Your task to perform on an android device: Show the shopping cart on ebay. Search for duracell triple a on ebay, select the first entry, and add it to the cart. Image 0: 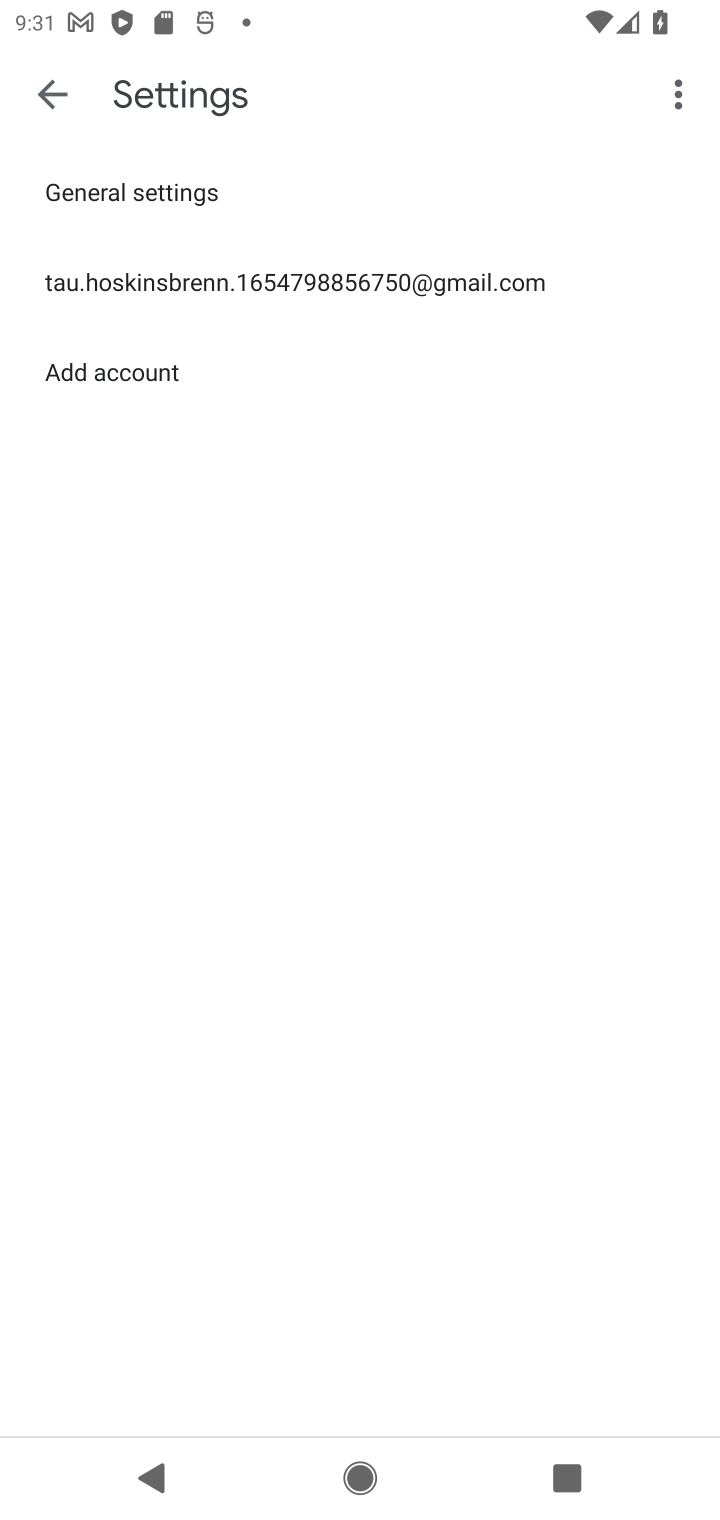
Step 0: press home button
Your task to perform on an android device: Show the shopping cart on ebay. Search for duracell triple a on ebay, select the first entry, and add it to the cart. Image 1: 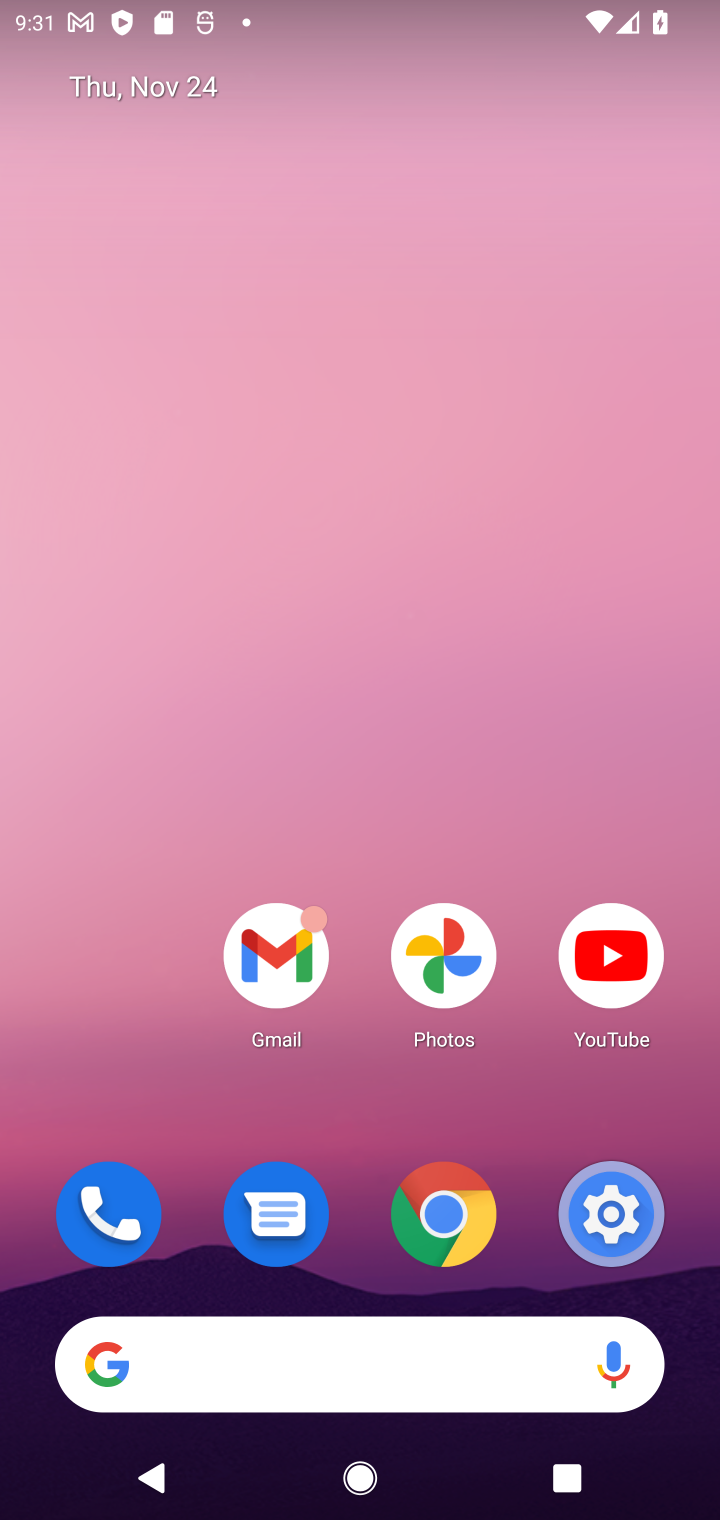
Step 1: click (383, 1357)
Your task to perform on an android device: Show the shopping cart on ebay. Search for duracell triple a on ebay, select the first entry, and add it to the cart. Image 2: 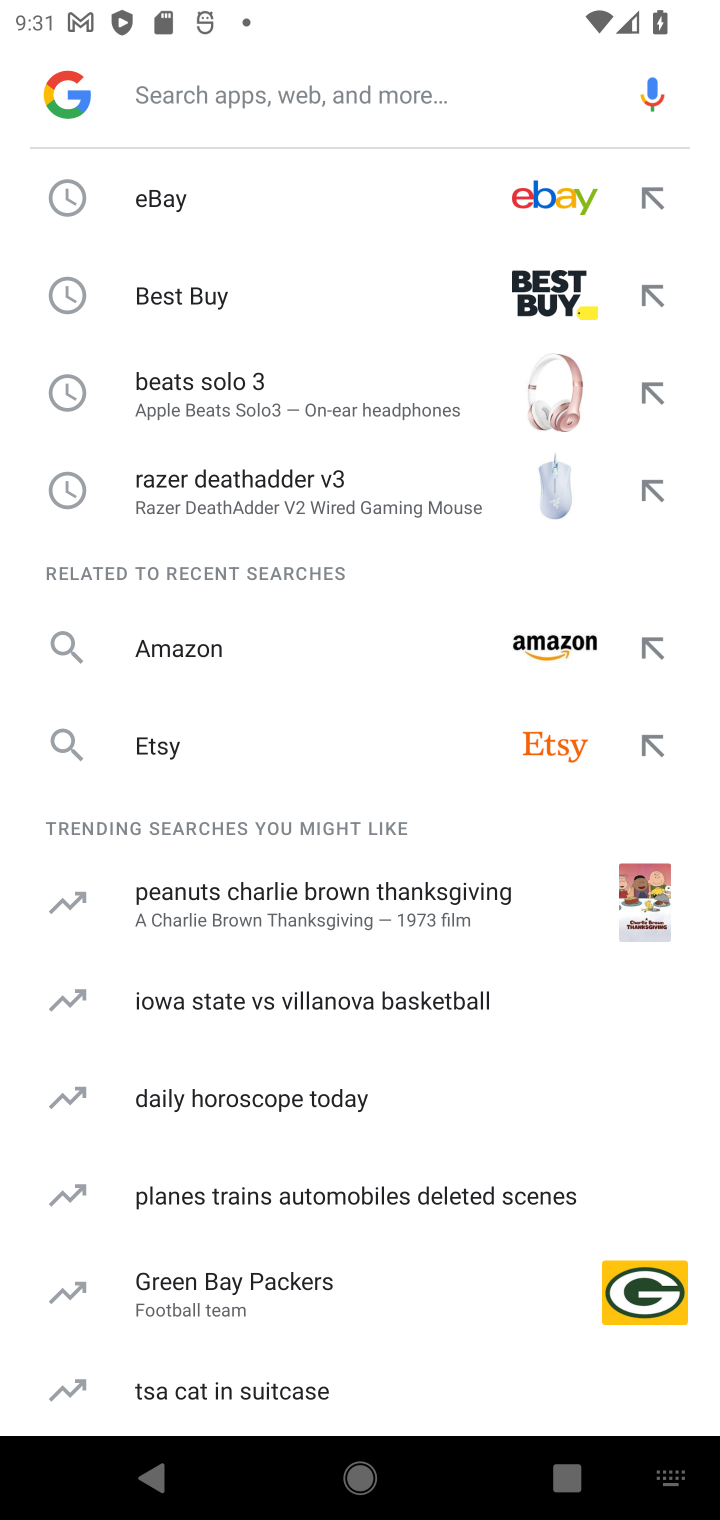
Step 2: type "ebay.com"
Your task to perform on an android device: Show the shopping cart on ebay. Search for duracell triple a on ebay, select the first entry, and add it to the cart. Image 3: 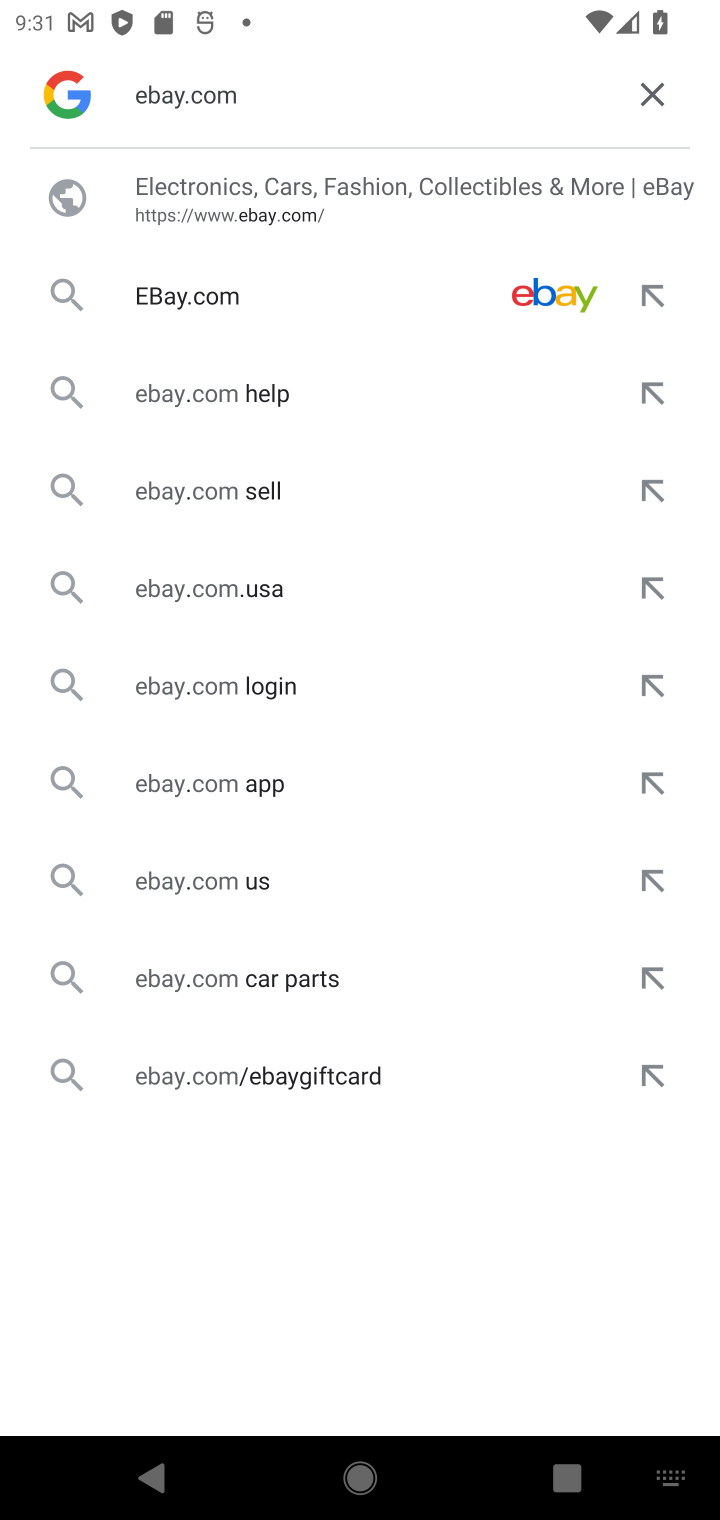
Step 3: click (219, 190)
Your task to perform on an android device: Show the shopping cart on ebay. Search for duracell triple a on ebay, select the first entry, and add it to the cart. Image 4: 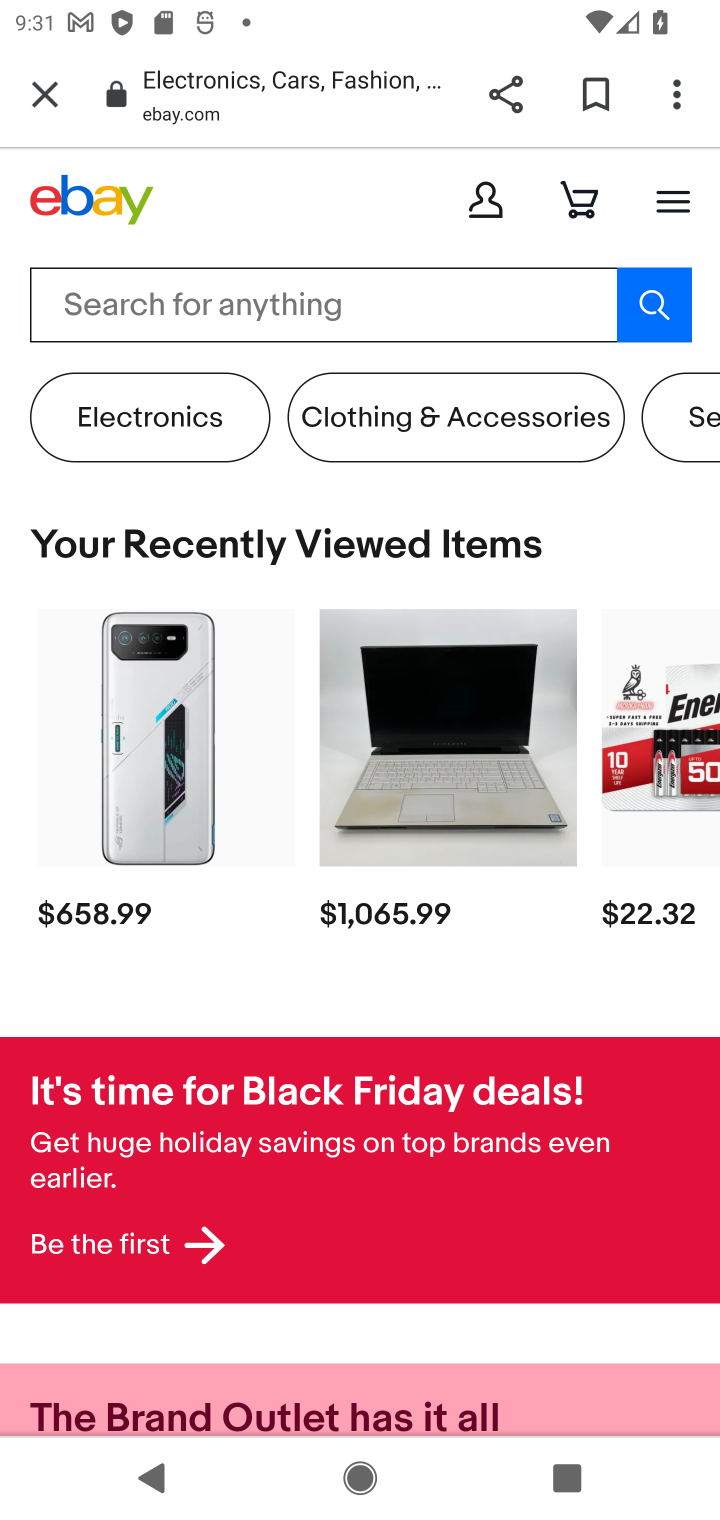
Step 4: click (221, 316)
Your task to perform on an android device: Show the shopping cart on ebay. Search for duracell triple a on ebay, select the first entry, and add it to the cart. Image 5: 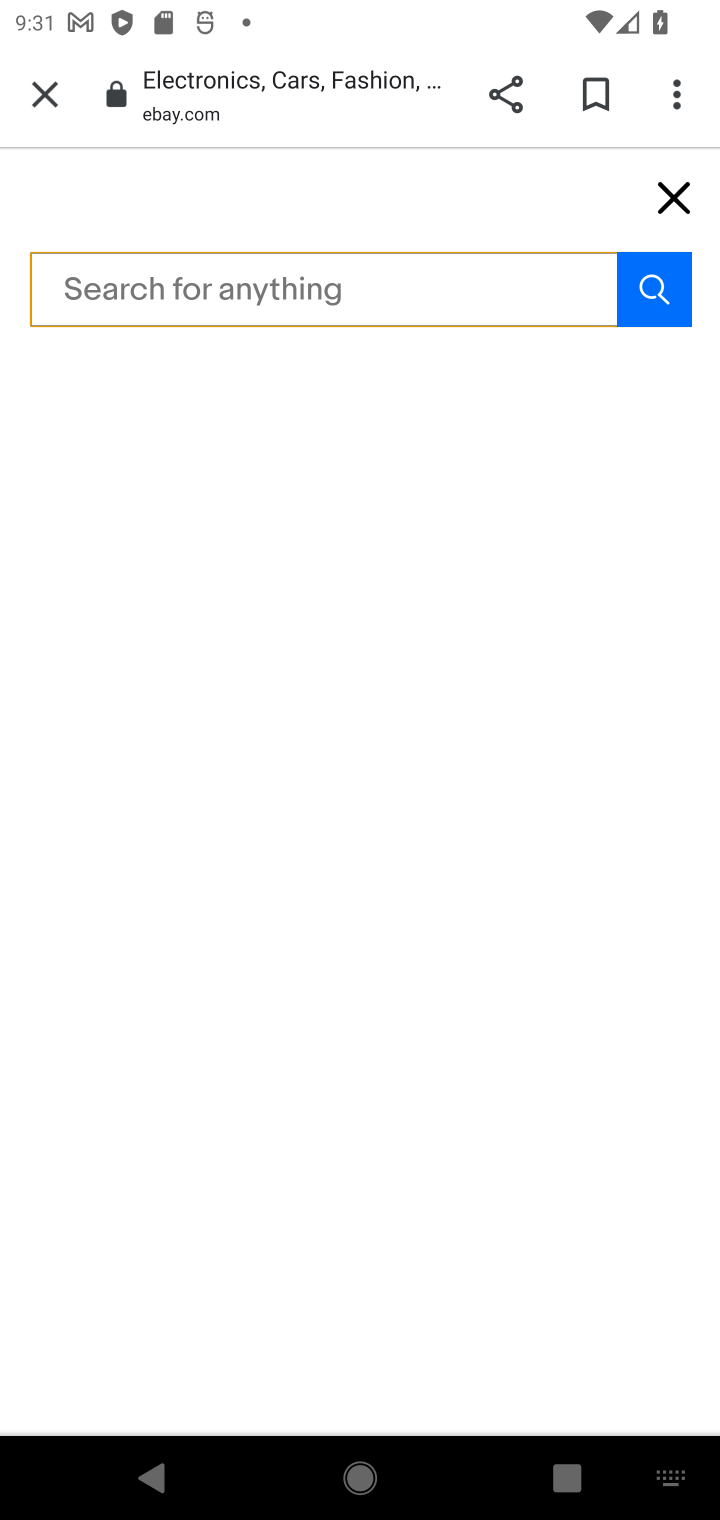
Step 5: type "duracell triple "
Your task to perform on an android device: Show the shopping cart on ebay. Search for duracell triple a on ebay, select the first entry, and add it to the cart. Image 6: 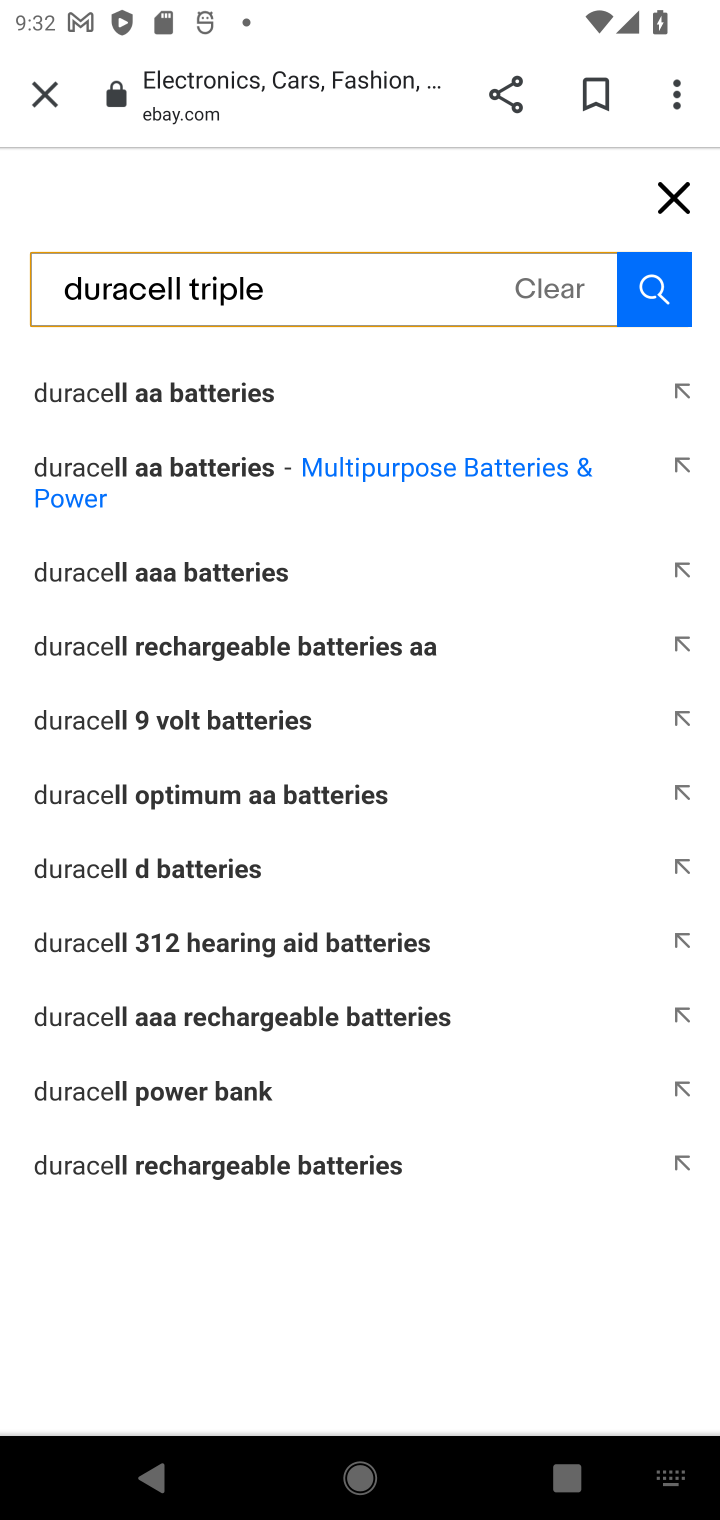
Step 6: click (252, 395)
Your task to perform on an android device: Show the shopping cart on ebay. Search for duracell triple a on ebay, select the first entry, and add it to the cart. Image 7: 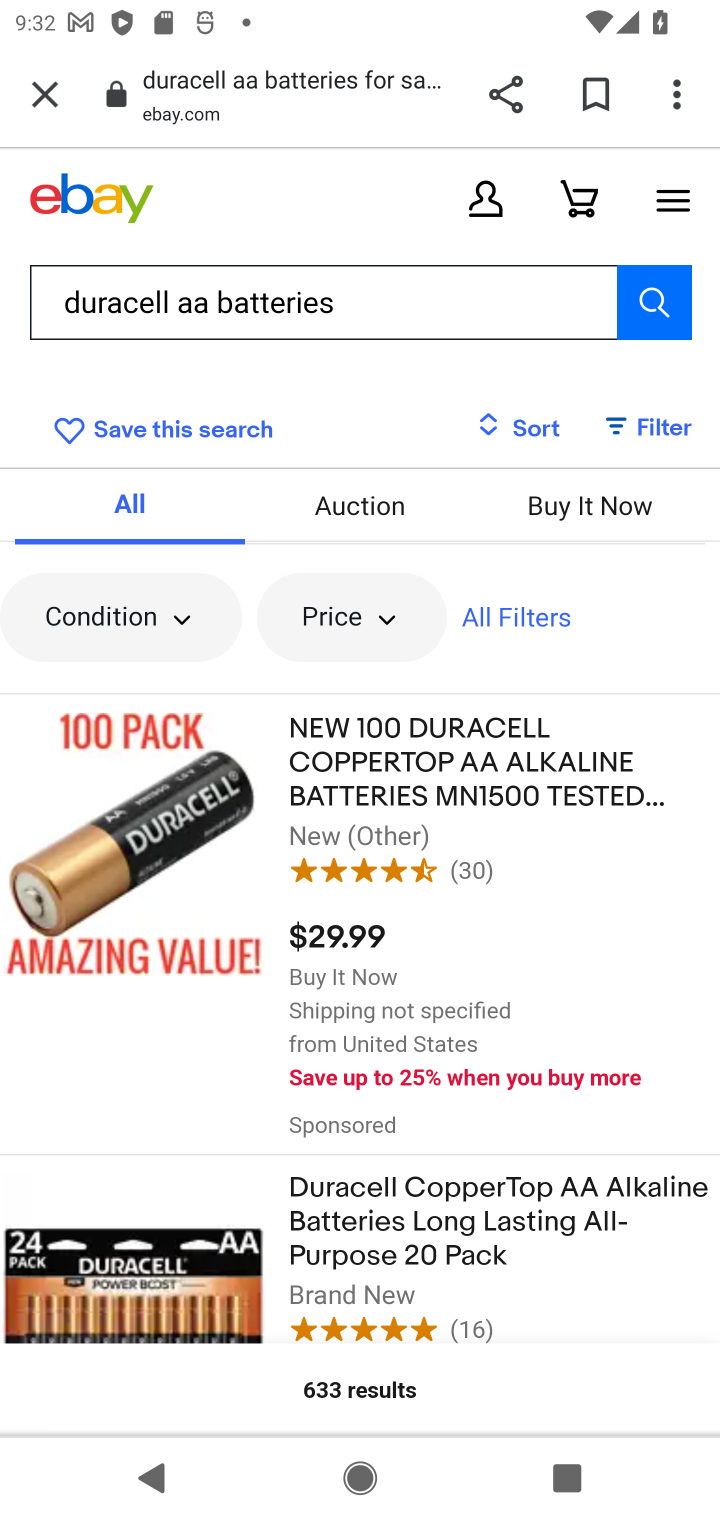
Step 7: click (390, 696)
Your task to perform on an android device: Show the shopping cart on ebay. Search for duracell triple a on ebay, select the first entry, and add it to the cart. Image 8: 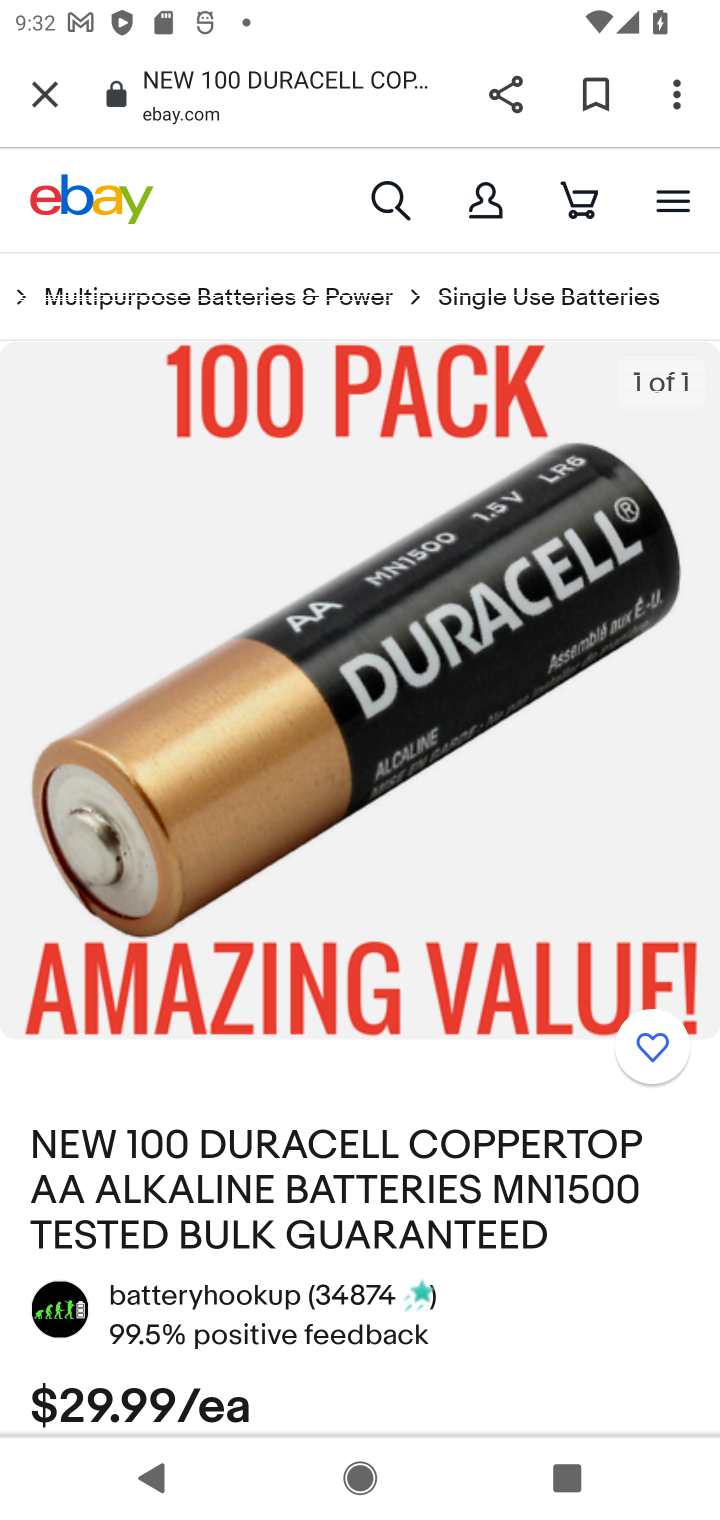
Step 8: drag from (503, 1358) to (302, 371)
Your task to perform on an android device: Show the shopping cart on ebay. Search for duracell triple a on ebay, select the first entry, and add it to the cart. Image 9: 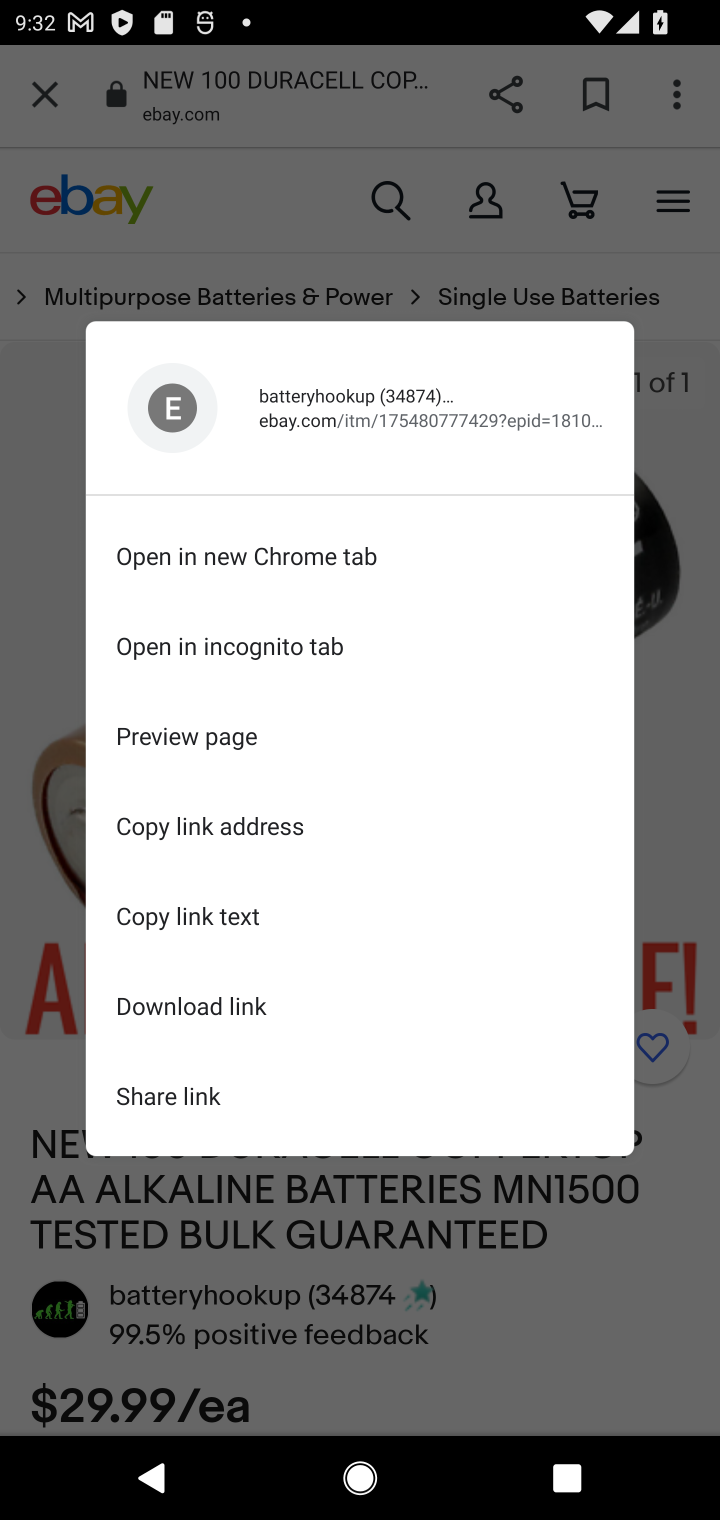
Step 9: click (467, 1258)
Your task to perform on an android device: Show the shopping cart on ebay. Search for duracell triple a on ebay, select the first entry, and add it to the cart. Image 10: 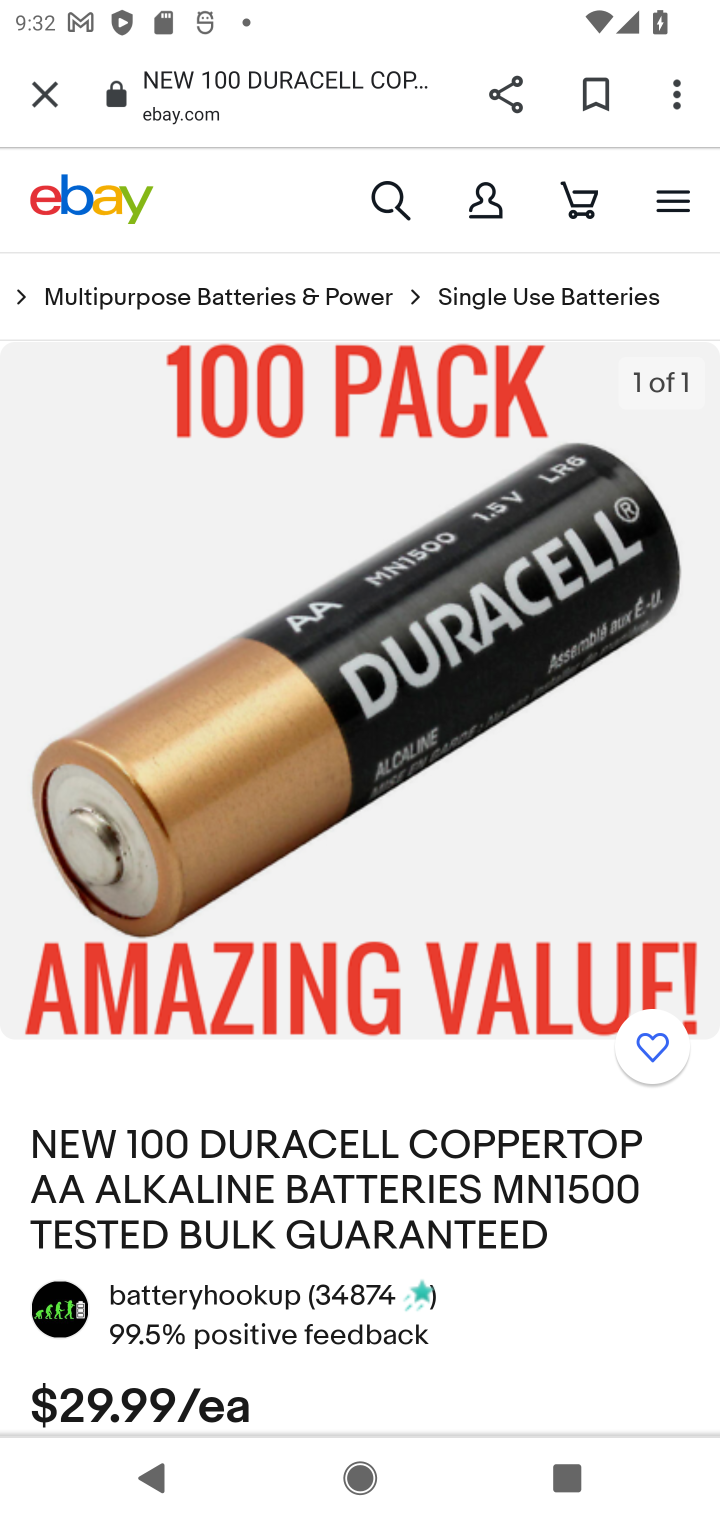
Step 10: drag from (564, 1403) to (539, 476)
Your task to perform on an android device: Show the shopping cart on ebay. Search for duracell triple a on ebay, select the first entry, and add it to the cart. Image 11: 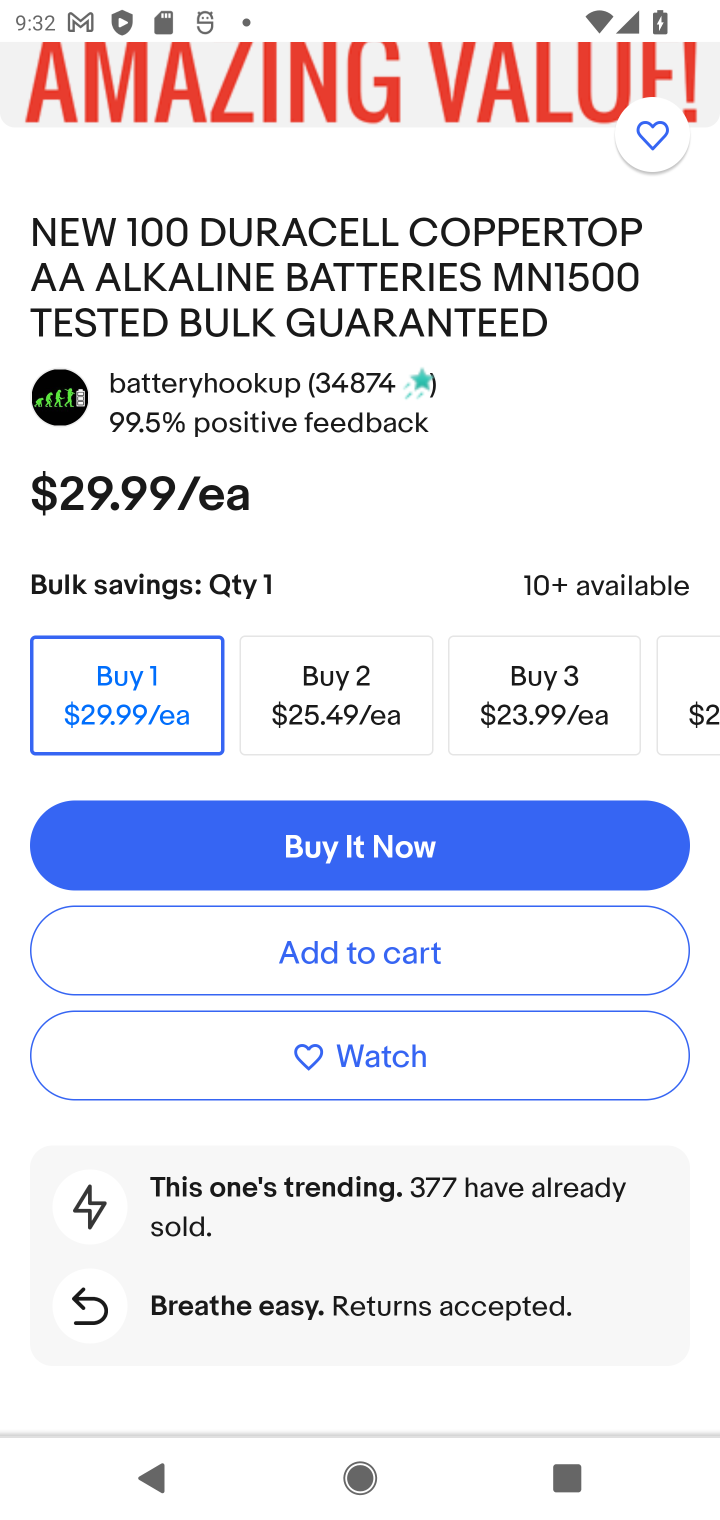
Step 11: click (347, 965)
Your task to perform on an android device: Show the shopping cart on ebay. Search for duracell triple a on ebay, select the first entry, and add it to the cart. Image 12: 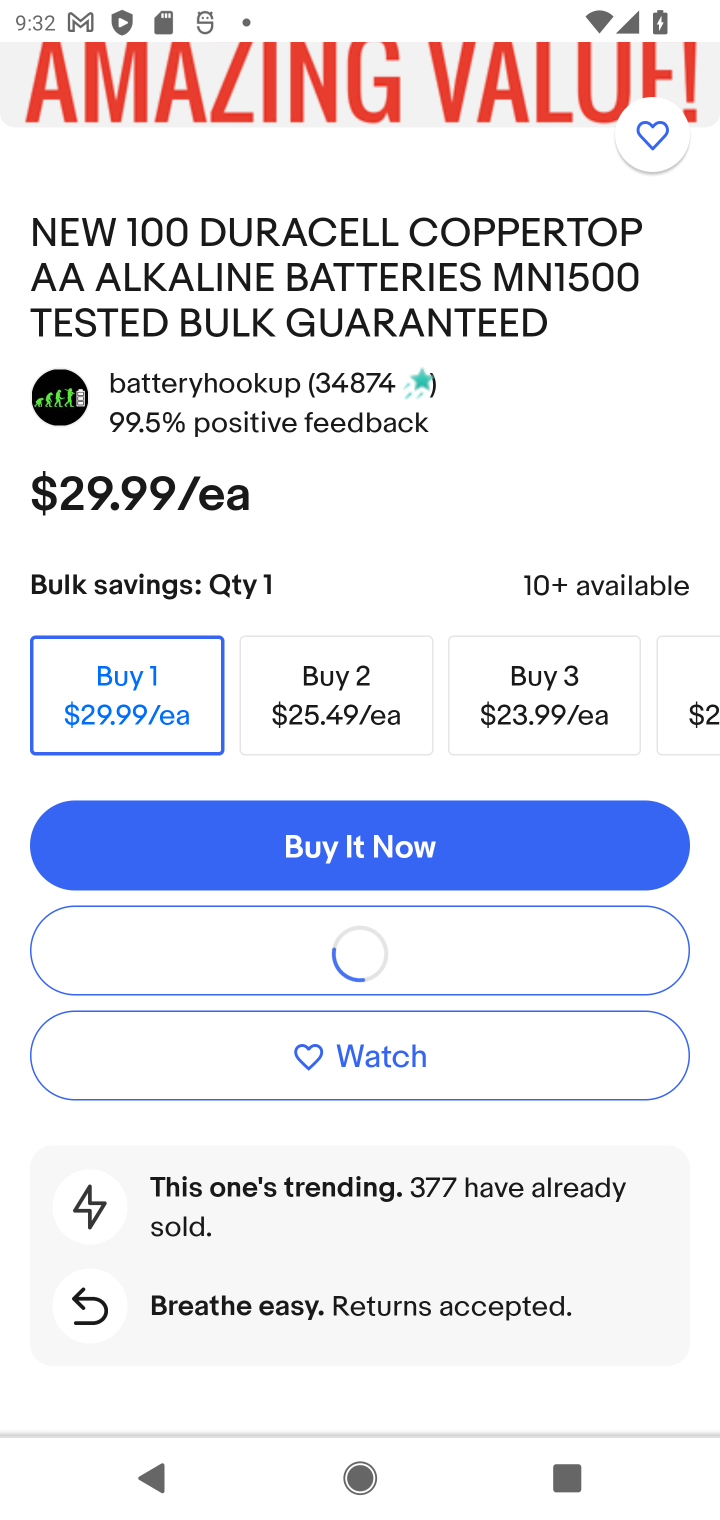
Step 12: task complete